Your task to perform on an android device: turn off location Image 0: 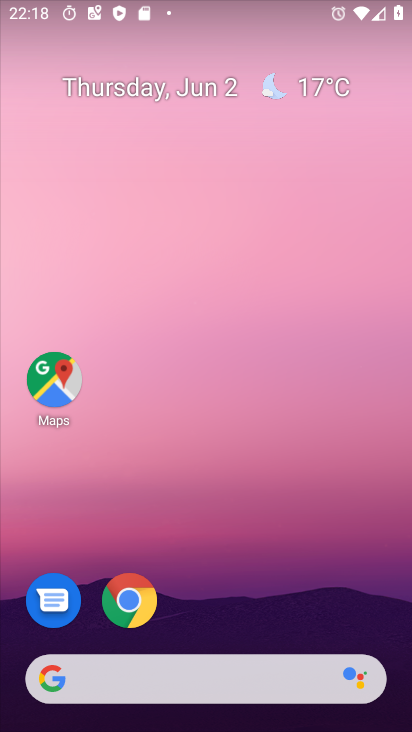
Step 0: drag from (376, 588) to (379, 205)
Your task to perform on an android device: turn off location Image 1: 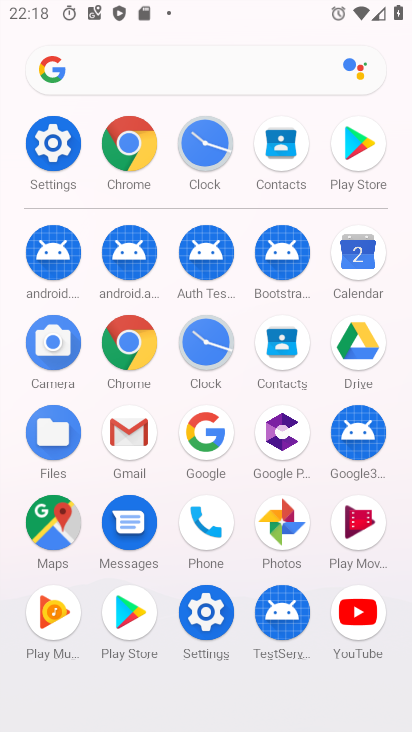
Step 1: click (213, 617)
Your task to perform on an android device: turn off location Image 2: 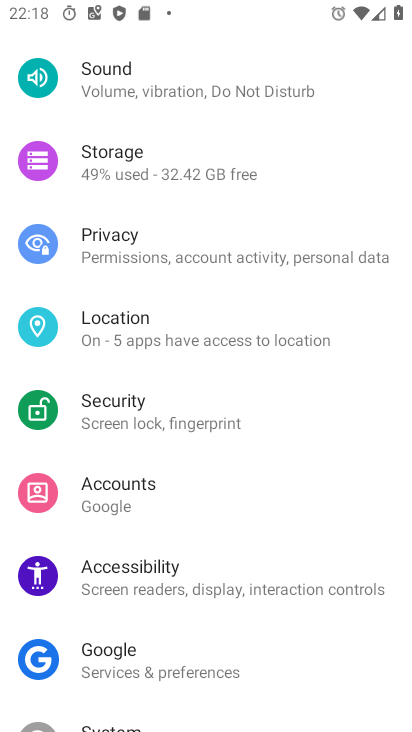
Step 2: drag from (346, 299) to (352, 385)
Your task to perform on an android device: turn off location Image 3: 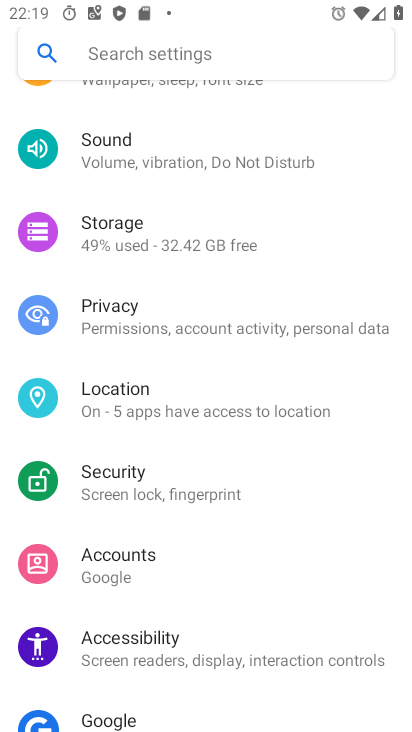
Step 3: drag from (366, 227) to (362, 333)
Your task to perform on an android device: turn off location Image 4: 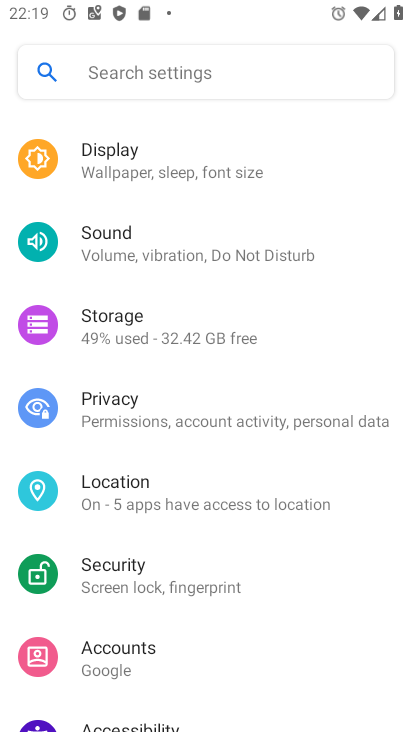
Step 4: drag from (362, 193) to (371, 311)
Your task to perform on an android device: turn off location Image 5: 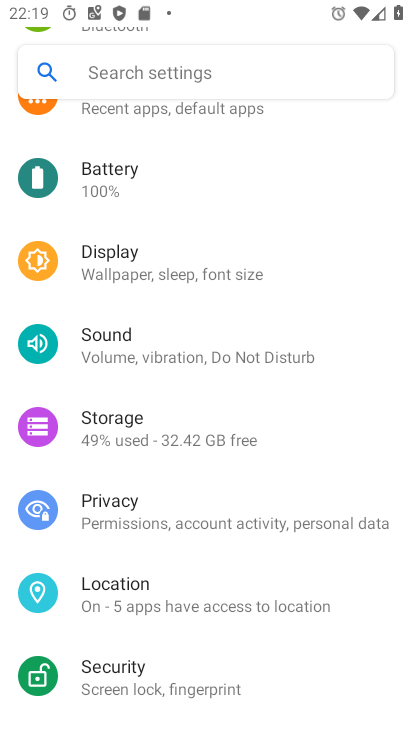
Step 5: drag from (363, 206) to (363, 321)
Your task to perform on an android device: turn off location Image 6: 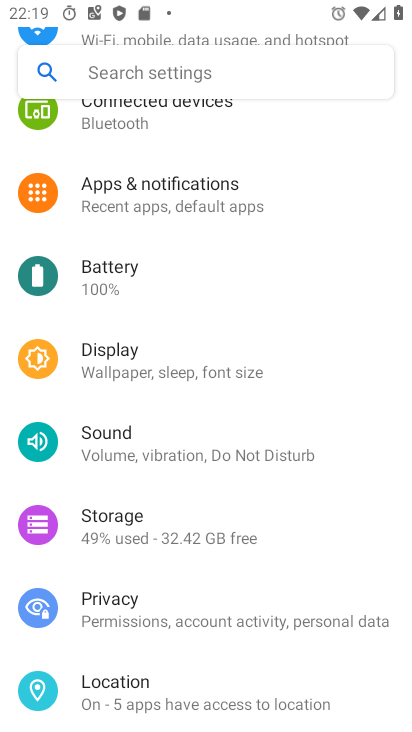
Step 6: drag from (356, 213) to (354, 326)
Your task to perform on an android device: turn off location Image 7: 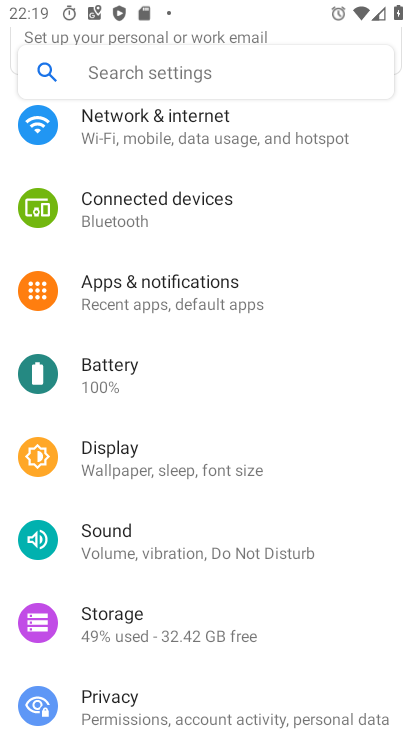
Step 7: drag from (357, 237) to (371, 412)
Your task to perform on an android device: turn off location Image 8: 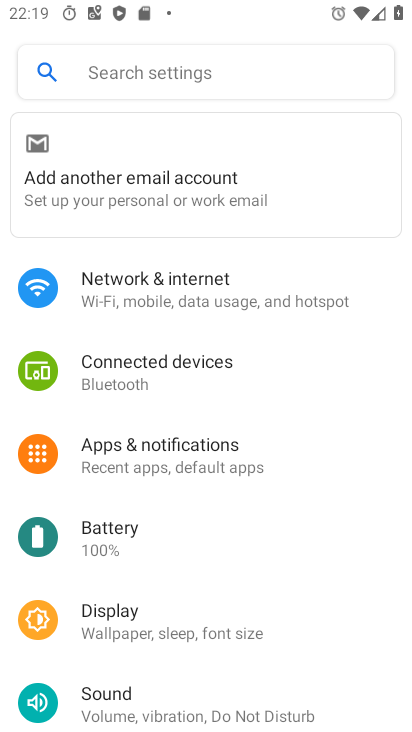
Step 8: drag from (364, 220) to (360, 391)
Your task to perform on an android device: turn off location Image 9: 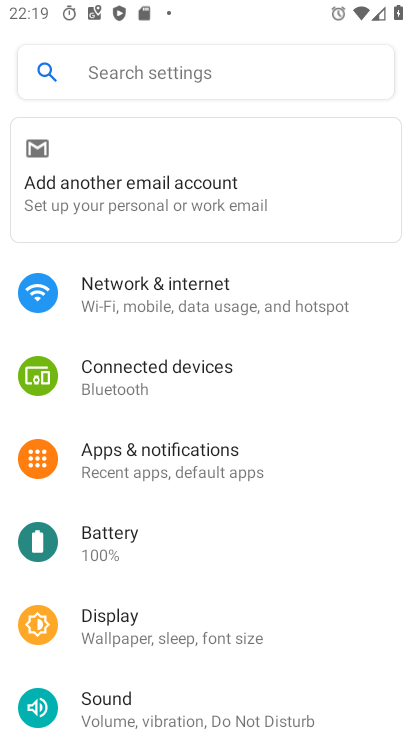
Step 9: drag from (325, 481) to (339, 350)
Your task to perform on an android device: turn off location Image 10: 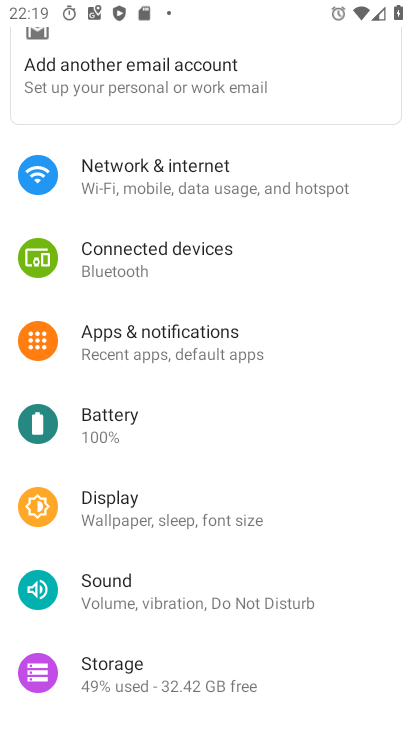
Step 10: drag from (338, 481) to (336, 317)
Your task to perform on an android device: turn off location Image 11: 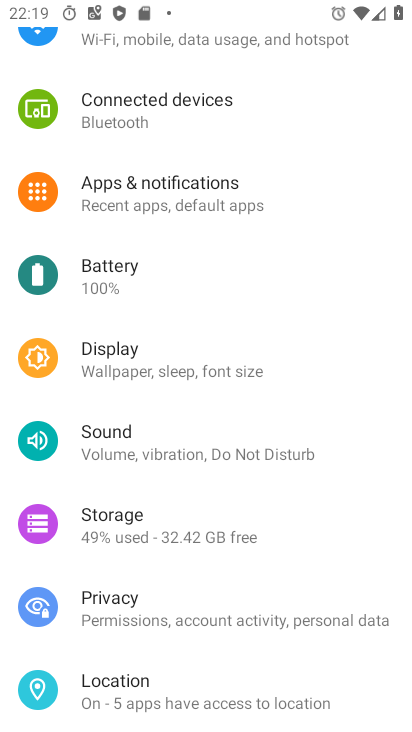
Step 11: drag from (328, 518) to (335, 316)
Your task to perform on an android device: turn off location Image 12: 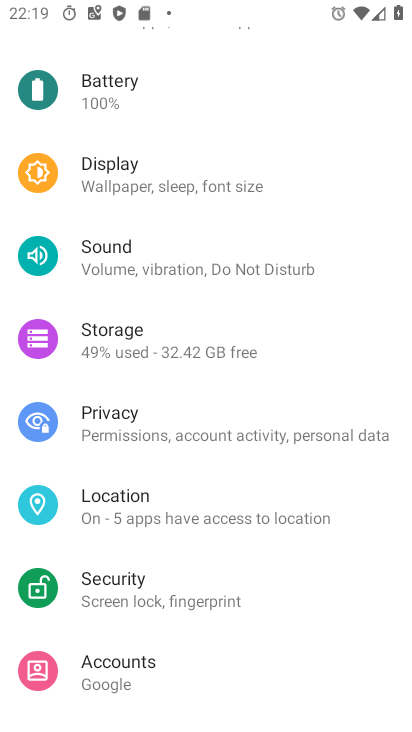
Step 12: drag from (353, 555) to (353, 374)
Your task to perform on an android device: turn off location Image 13: 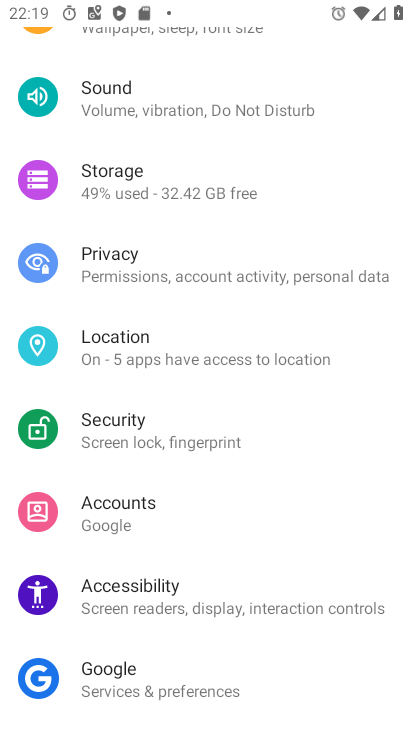
Step 13: click (320, 364)
Your task to perform on an android device: turn off location Image 14: 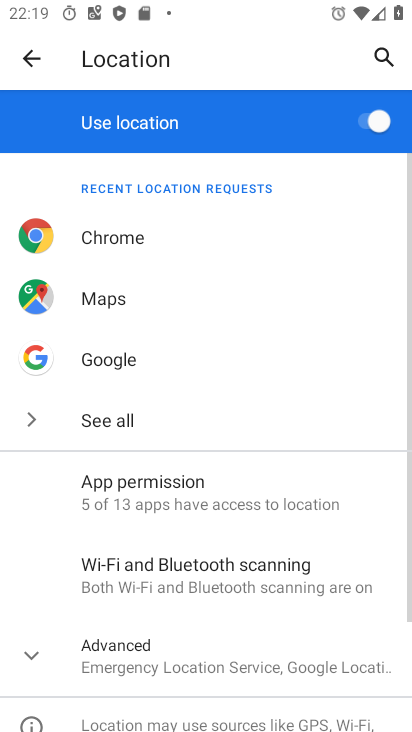
Step 14: click (361, 123)
Your task to perform on an android device: turn off location Image 15: 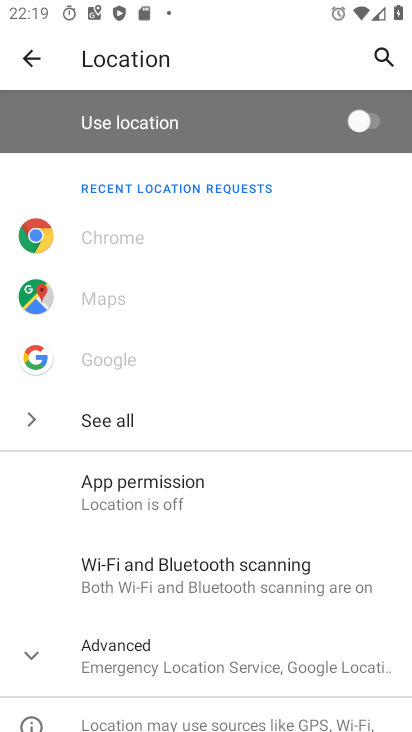
Step 15: task complete